Your task to perform on an android device: open app "Airtel Thanks" (install if not already installed) Image 0: 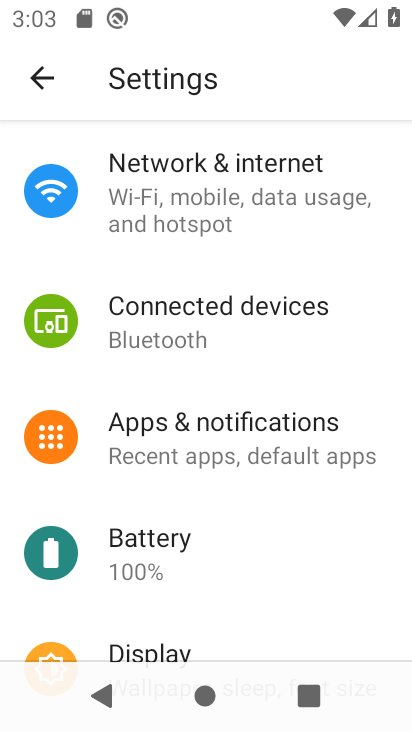
Step 0: press home button
Your task to perform on an android device: open app "Airtel Thanks" (install if not already installed) Image 1: 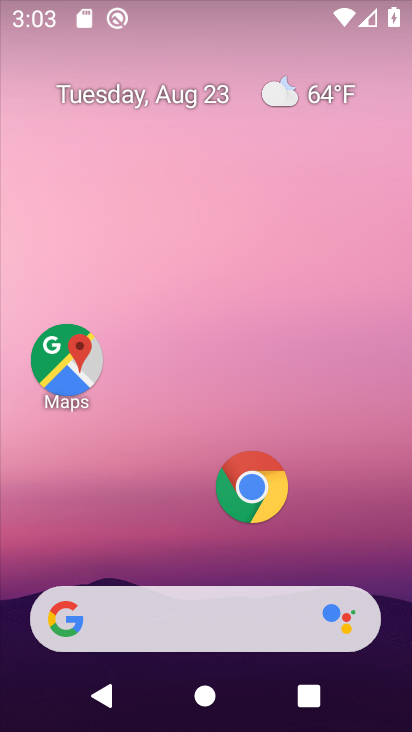
Step 1: drag from (178, 513) to (209, 193)
Your task to perform on an android device: open app "Airtel Thanks" (install if not already installed) Image 2: 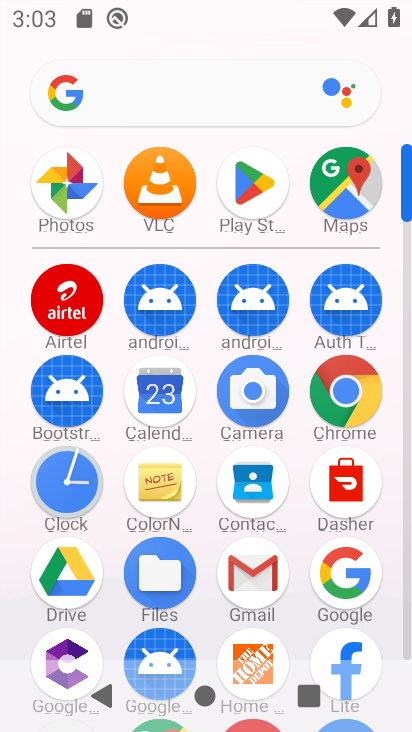
Step 2: click (255, 179)
Your task to perform on an android device: open app "Airtel Thanks" (install if not already installed) Image 3: 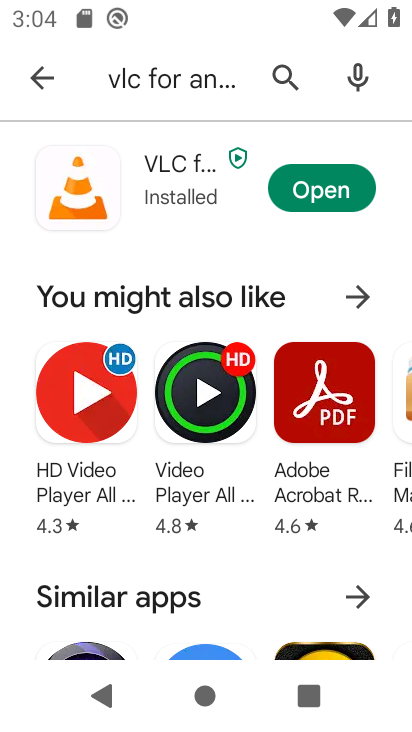
Step 3: click (50, 71)
Your task to perform on an android device: open app "Airtel Thanks" (install if not already installed) Image 4: 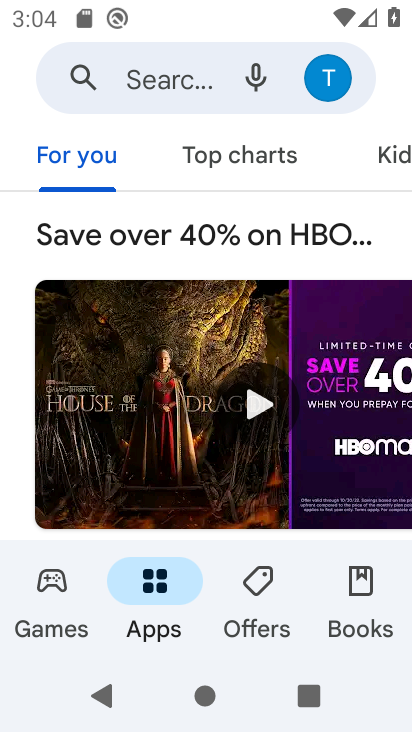
Step 4: click (197, 73)
Your task to perform on an android device: open app "Airtel Thanks" (install if not already installed) Image 5: 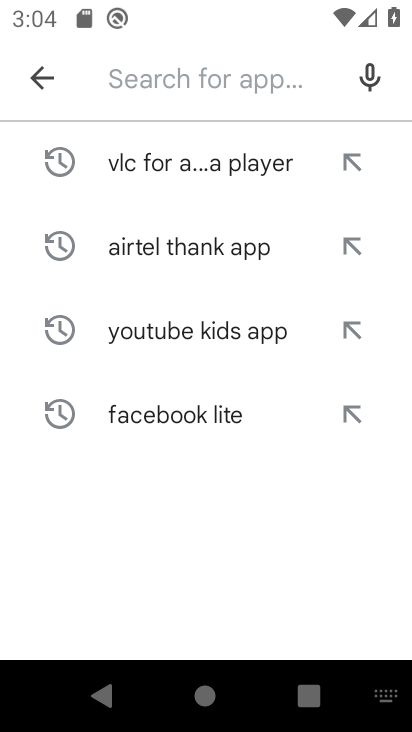
Step 5: type "Airtel Thanks "
Your task to perform on an android device: open app "Airtel Thanks" (install if not already installed) Image 6: 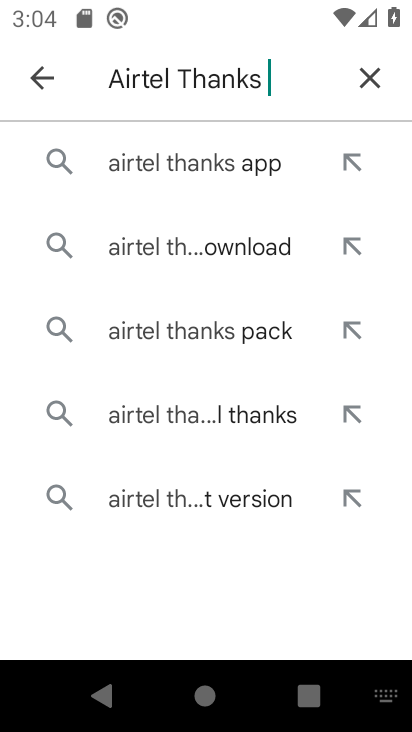
Step 6: click (210, 149)
Your task to perform on an android device: open app "Airtel Thanks" (install if not already installed) Image 7: 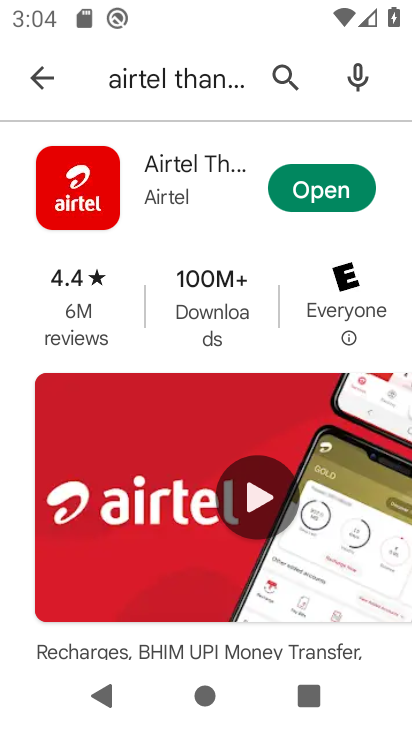
Step 7: task complete